Your task to perform on an android device: see tabs open on other devices in the chrome app Image 0: 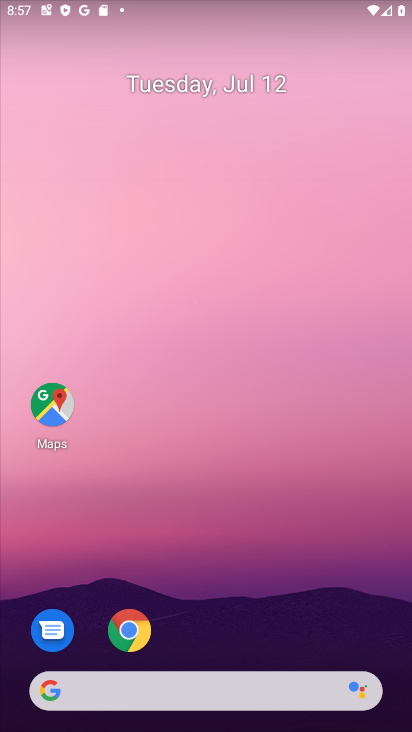
Step 0: click (130, 633)
Your task to perform on an android device: see tabs open on other devices in the chrome app Image 1: 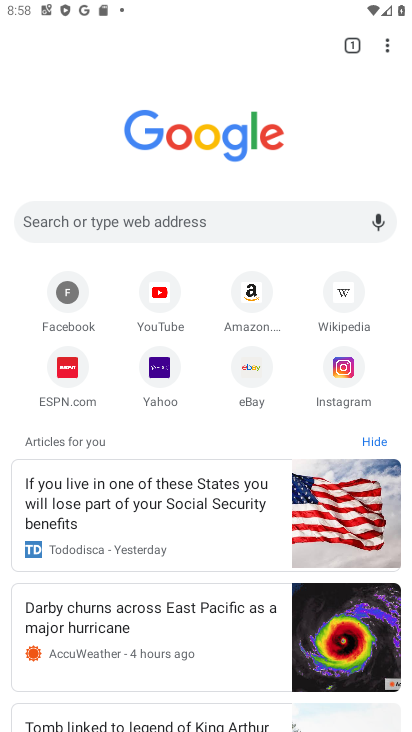
Step 1: click (352, 49)
Your task to perform on an android device: see tabs open on other devices in the chrome app Image 2: 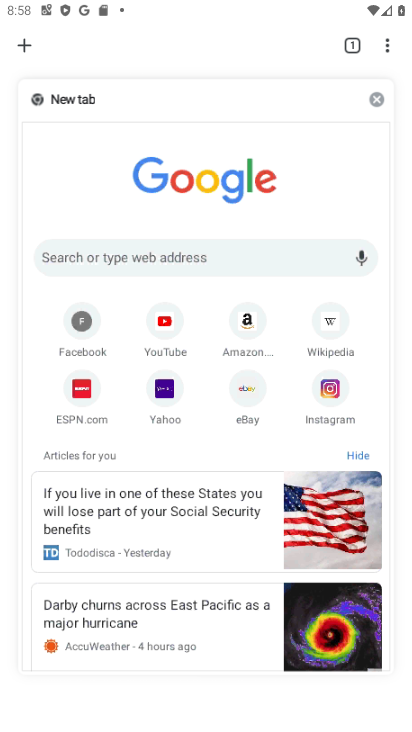
Step 2: task complete